Your task to perform on an android device: Clear all items from cart on ebay. Search for "bose soundlink mini" on ebay, select the first entry, add it to the cart, then select checkout. Image 0: 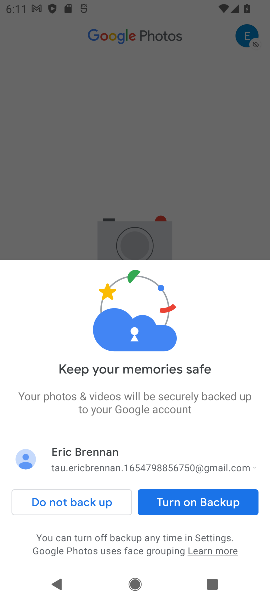
Step 0: press home button
Your task to perform on an android device: Clear all items from cart on ebay. Search for "bose soundlink mini" on ebay, select the first entry, add it to the cart, then select checkout. Image 1: 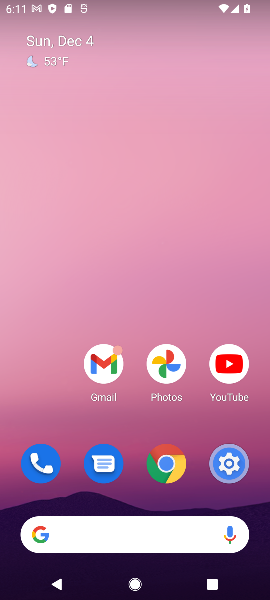
Step 1: click (152, 524)
Your task to perform on an android device: Clear all items from cart on ebay. Search for "bose soundlink mini" on ebay, select the first entry, add it to the cart, then select checkout. Image 2: 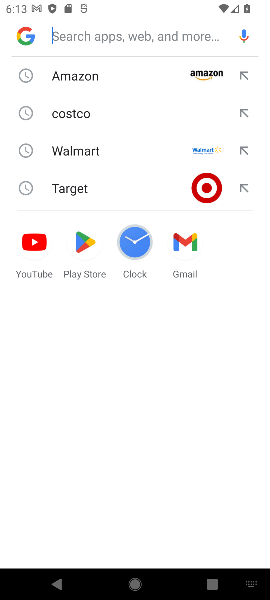
Step 2: type "ebay"
Your task to perform on an android device: Clear all items from cart on ebay. Search for "bose soundlink mini" on ebay, select the first entry, add it to the cart, then select checkout. Image 3: 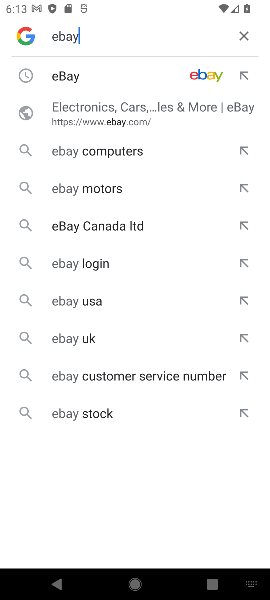
Step 3: click (67, 87)
Your task to perform on an android device: Clear all items from cart on ebay. Search for "bose soundlink mini" on ebay, select the first entry, add it to the cart, then select checkout. Image 4: 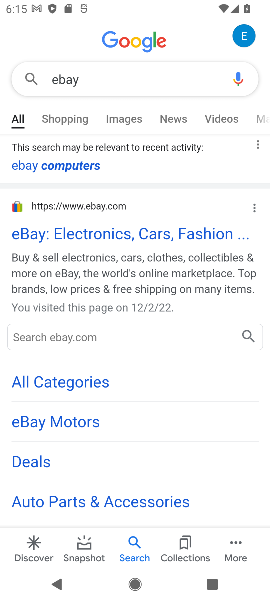
Step 4: task complete